Your task to perform on an android device: Look up the best rated headphones on Aliexpress Image 0: 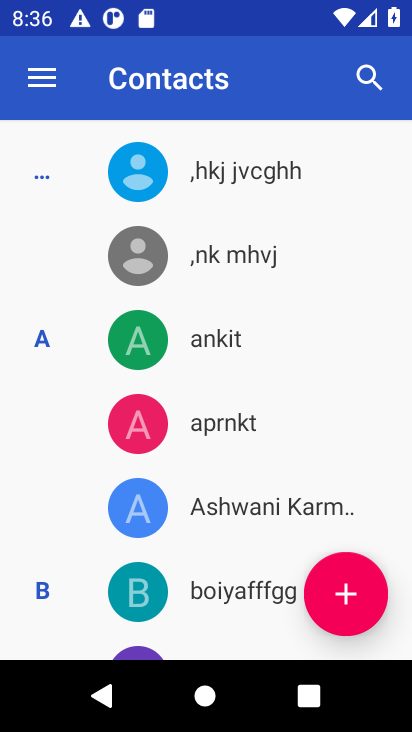
Step 0: task complete